Your task to perform on an android device: Toggle the flashlight Image 0: 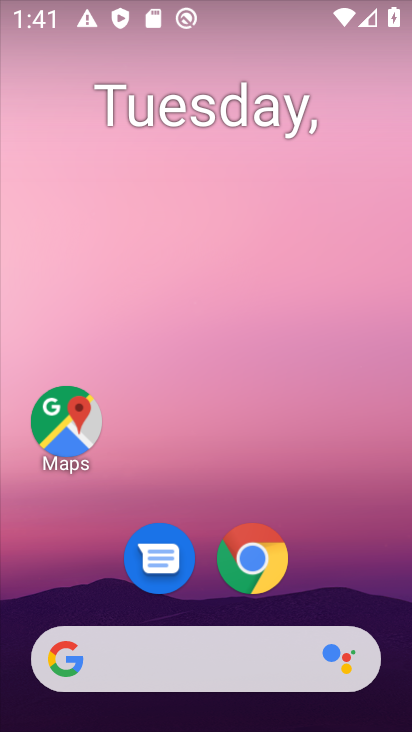
Step 0: drag from (215, 473) to (227, 112)
Your task to perform on an android device: Toggle the flashlight Image 1: 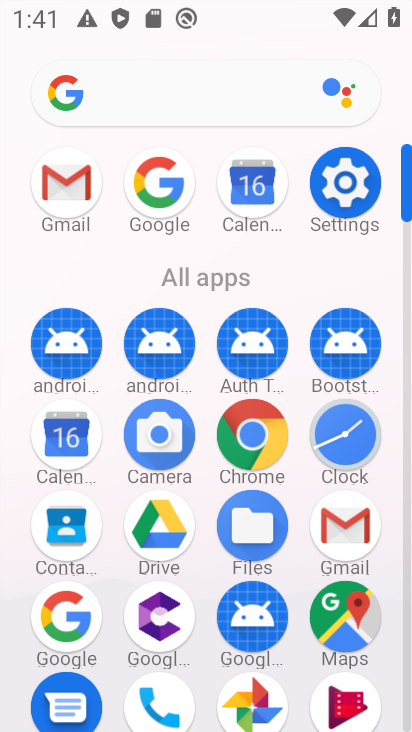
Step 1: click (327, 176)
Your task to perform on an android device: Toggle the flashlight Image 2: 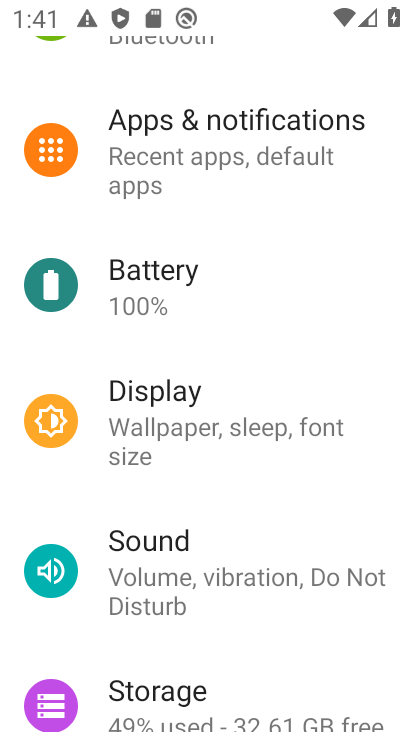
Step 2: task complete